Your task to perform on an android device: turn on wifi Image 0: 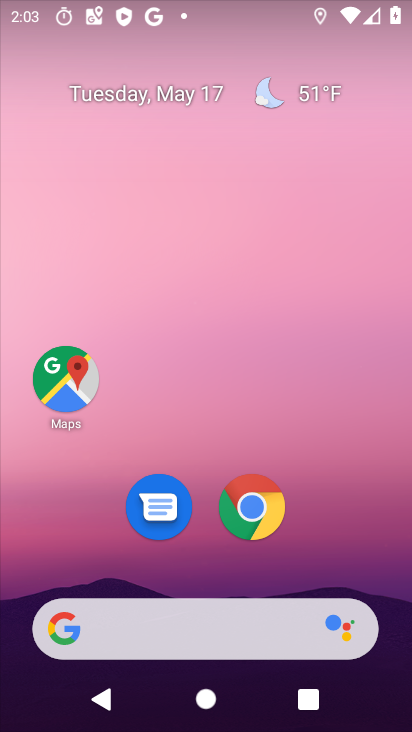
Step 0: drag from (203, 560) to (209, 163)
Your task to perform on an android device: turn on wifi Image 1: 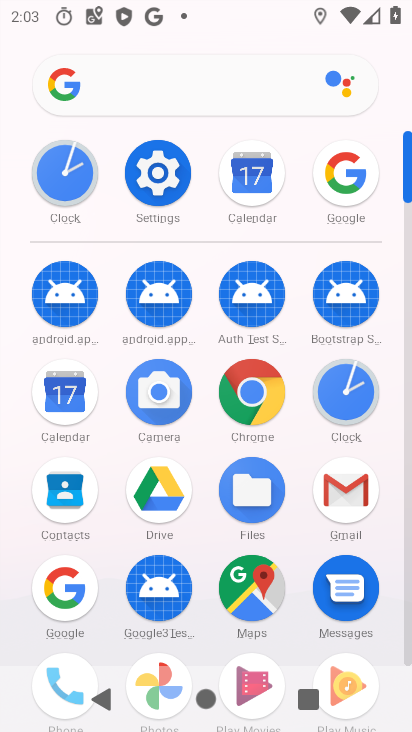
Step 1: click (158, 177)
Your task to perform on an android device: turn on wifi Image 2: 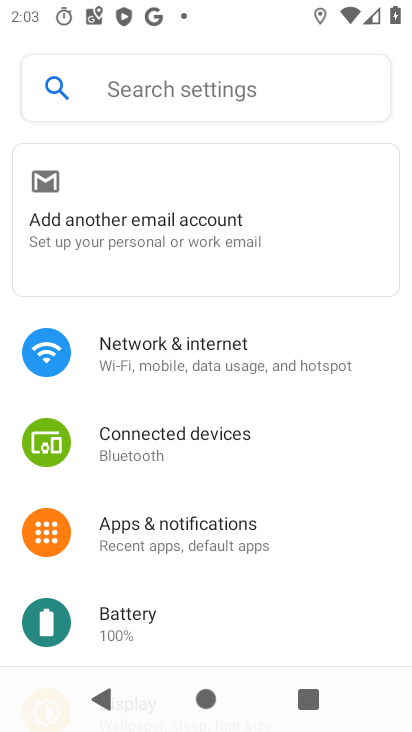
Step 2: click (152, 342)
Your task to perform on an android device: turn on wifi Image 3: 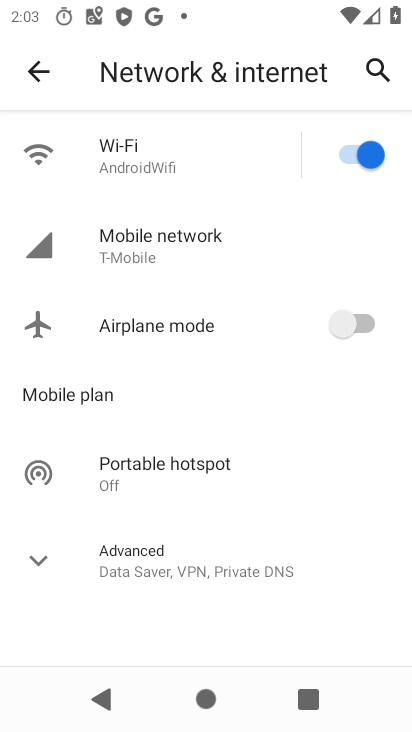
Step 3: task complete